Your task to perform on an android device: Clear the shopping cart on costco.com. Search for macbook on costco.com, select the first entry, add it to the cart, then select checkout. Image 0: 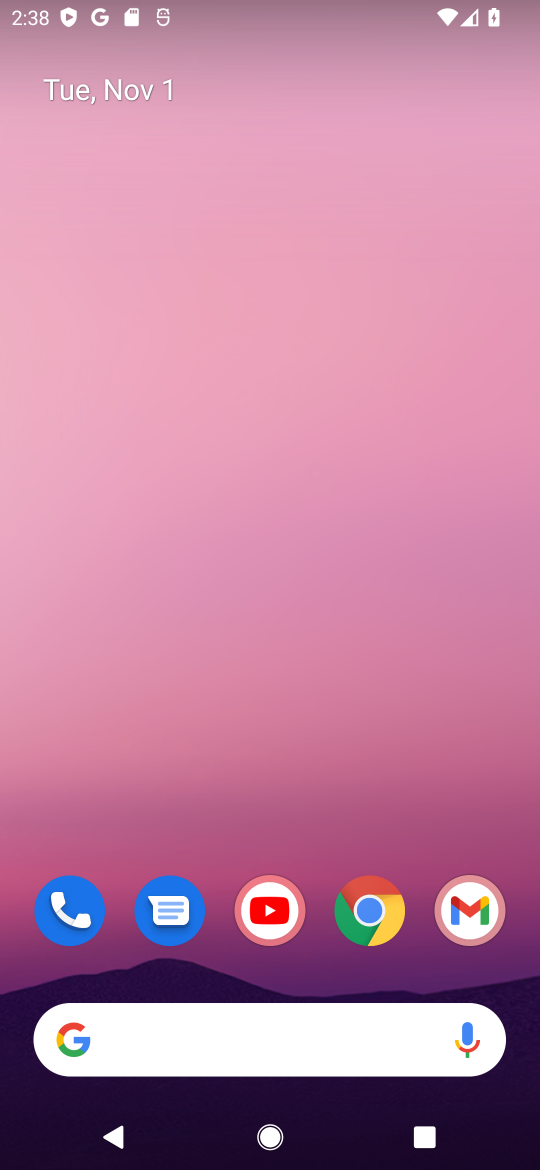
Step 0: click (262, 1033)
Your task to perform on an android device: Clear the shopping cart on costco.com. Search for macbook on costco.com, select the first entry, add it to the cart, then select checkout. Image 1: 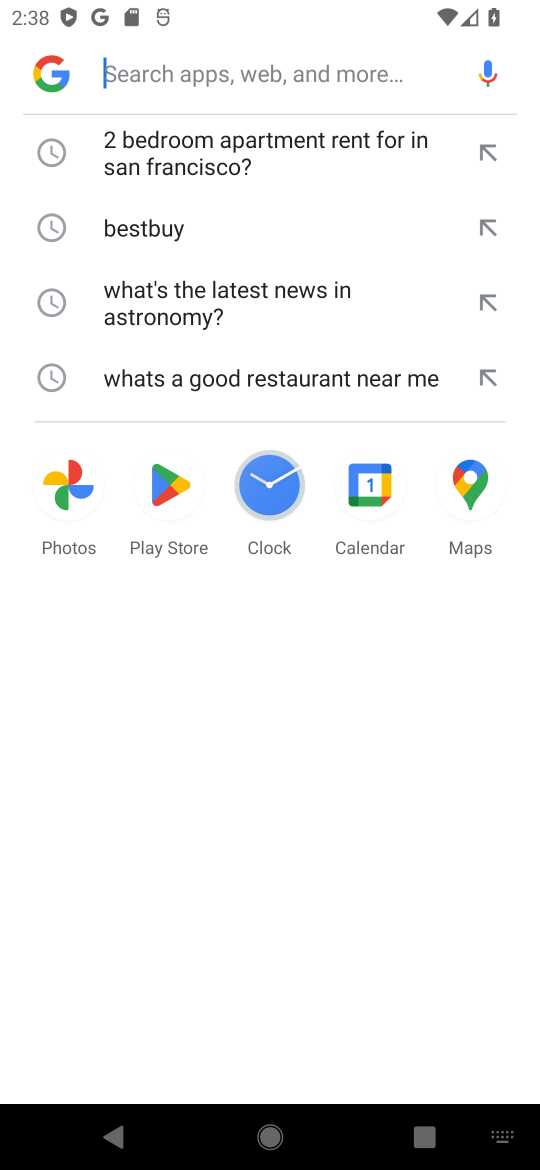
Step 1: type "costco.com."
Your task to perform on an android device: Clear the shopping cart on costco.com. Search for macbook on costco.com, select the first entry, add it to the cart, then select checkout. Image 2: 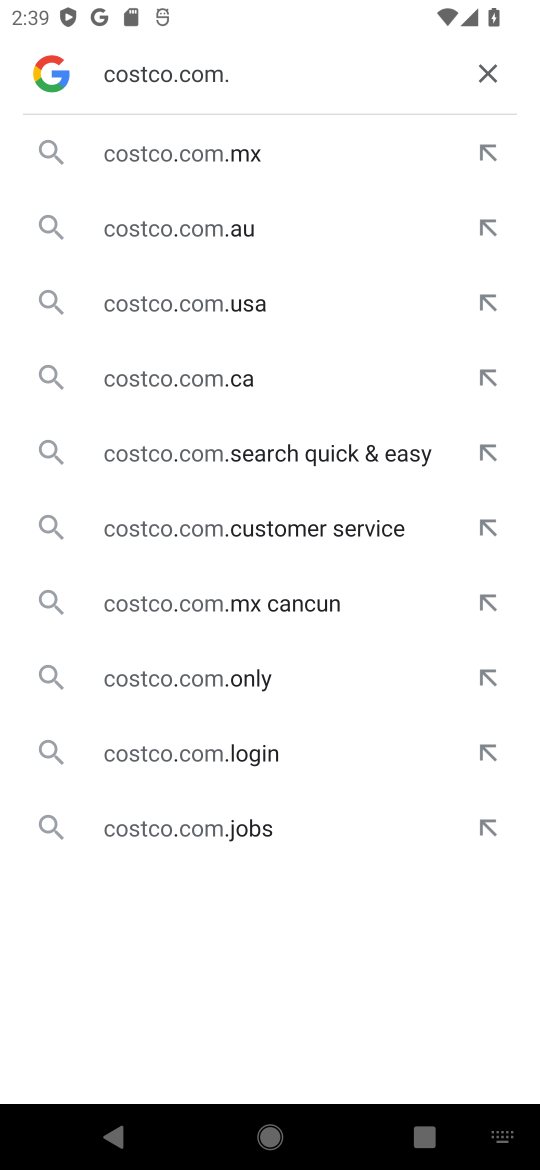
Step 2: click (230, 311)
Your task to perform on an android device: Clear the shopping cart on costco.com. Search for macbook on costco.com, select the first entry, add it to the cart, then select checkout. Image 3: 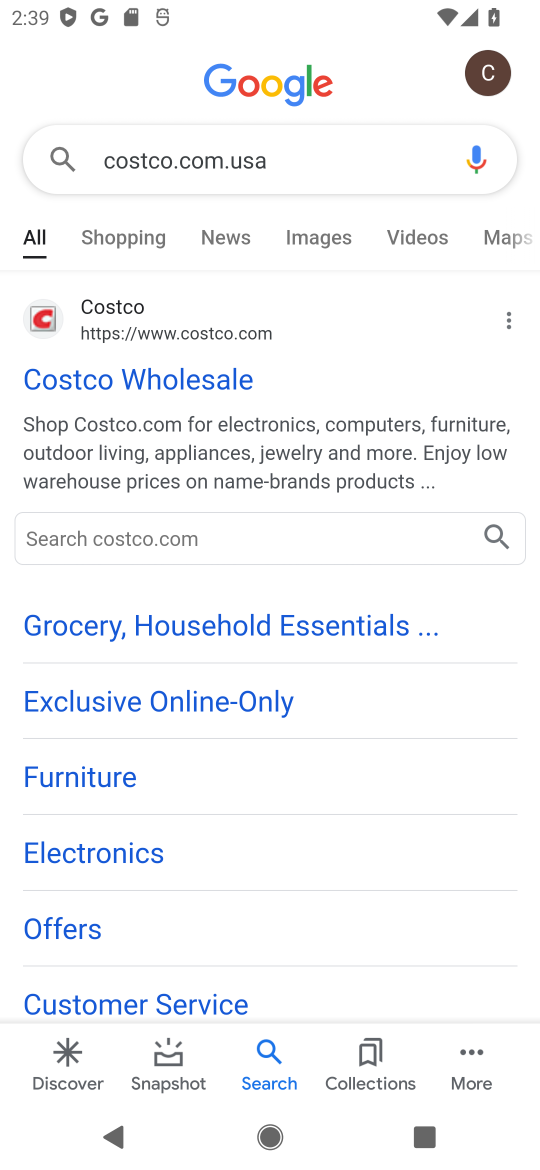
Step 3: click (117, 311)
Your task to perform on an android device: Clear the shopping cart on costco.com. Search for macbook on costco.com, select the first entry, add it to the cart, then select checkout. Image 4: 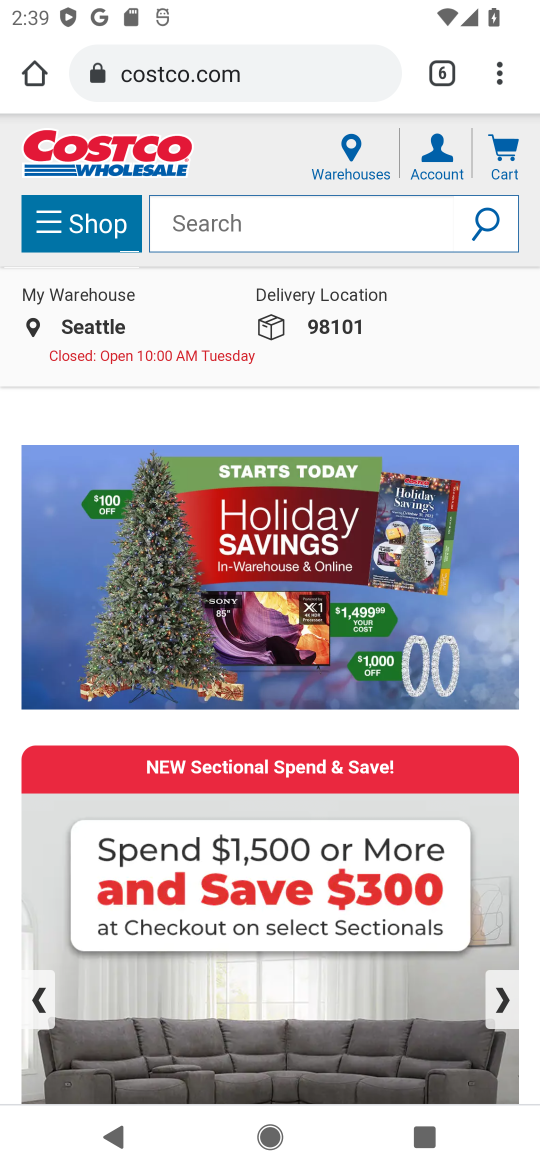
Step 4: click (350, 227)
Your task to perform on an android device: Clear the shopping cart on costco.com. Search for macbook on costco.com, select the first entry, add it to the cart, then select checkout. Image 5: 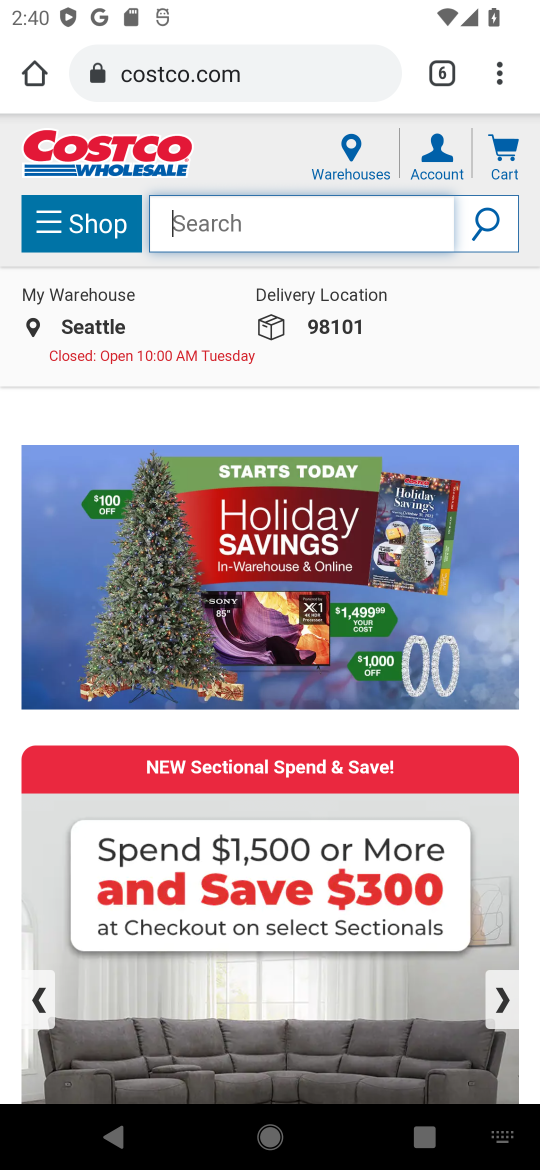
Step 5: type "macbook"
Your task to perform on an android device: Clear the shopping cart on costco.com. Search for macbook on costco.com, select the first entry, add it to the cart, then select checkout. Image 6: 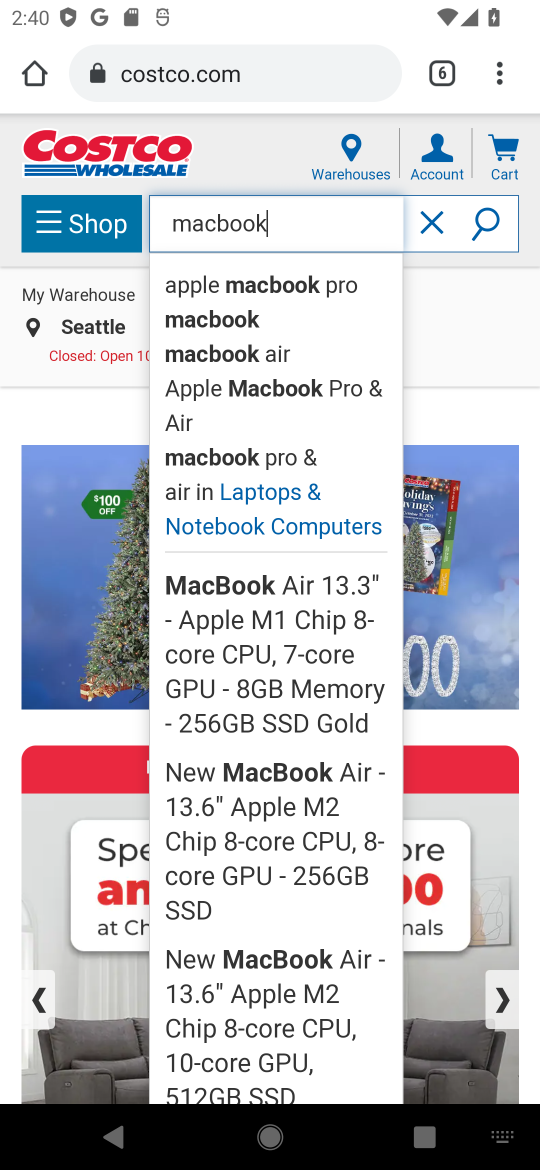
Step 6: click (234, 315)
Your task to perform on an android device: Clear the shopping cart on costco.com. Search for macbook on costco.com, select the first entry, add it to the cart, then select checkout. Image 7: 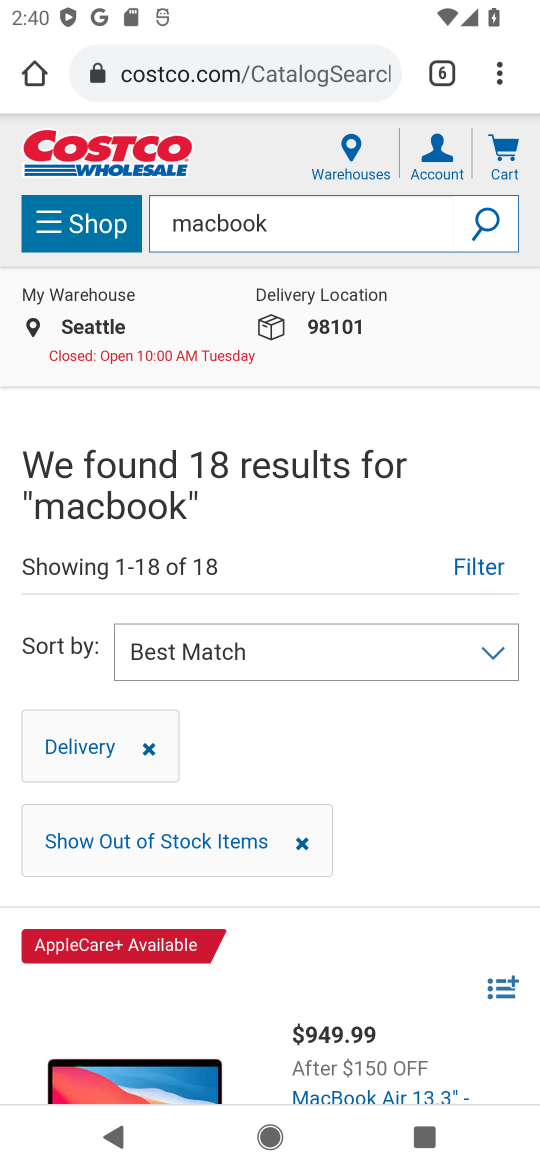
Step 7: click (330, 1053)
Your task to perform on an android device: Clear the shopping cart on costco.com. Search for macbook on costco.com, select the first entry, add it to the cart, then select checkout. Image 8: 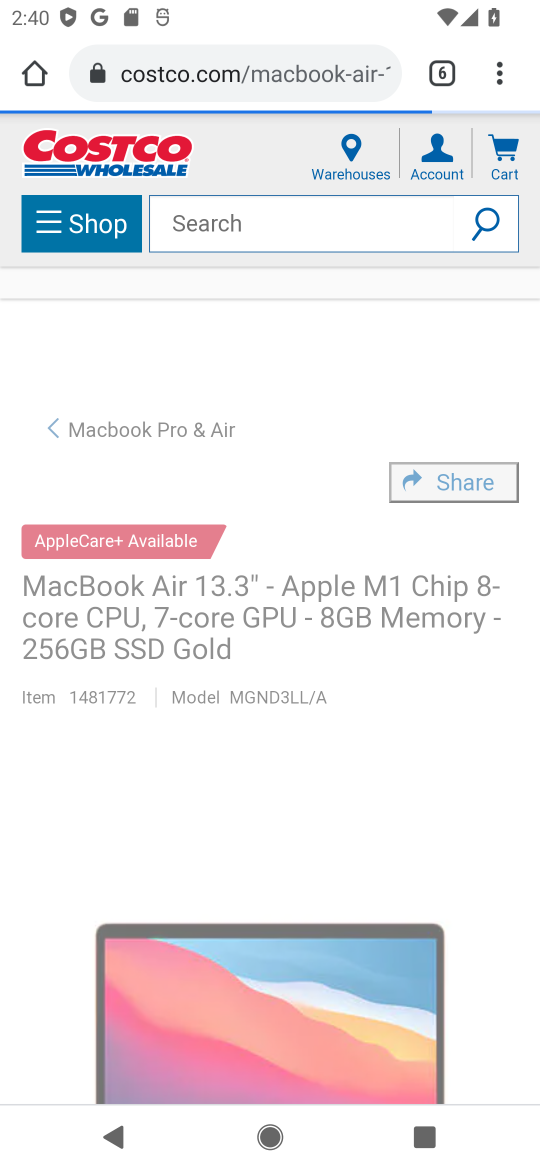
Step 8: drag from (322, 1025) to (281, 465)
Your task to perform on an android device: Clear the shopping cart on costco.com. Search for macbook on costco.com, select the first entry, add it to the cart, then select checkout. Image 9: 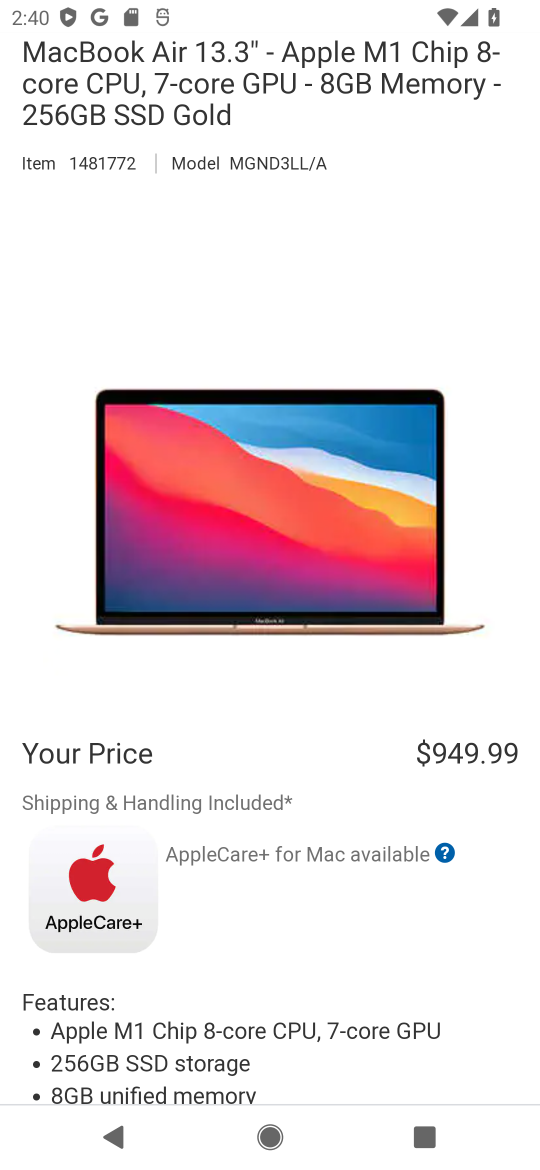
Step 9: drag from (192, 917) to (236, 443)
Your task to perform on an android device: Clear the shopping cart on costco.com. Search for macbook on costco.com, select the first entry, add it to the cart, then select checkout. Image 10: 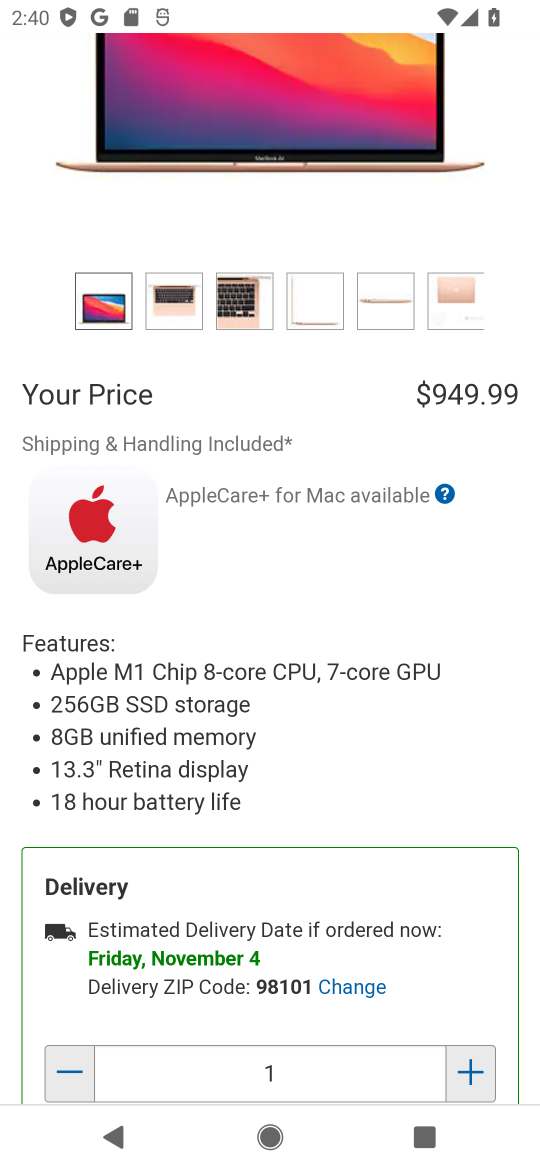
Step 10: click (367, 354)
Your task to perform on an android device: Clear the shopping cart on costco.com. Search for macbook on costco.com, select the first entry, add it to the cart, then select checkout. Image 11: 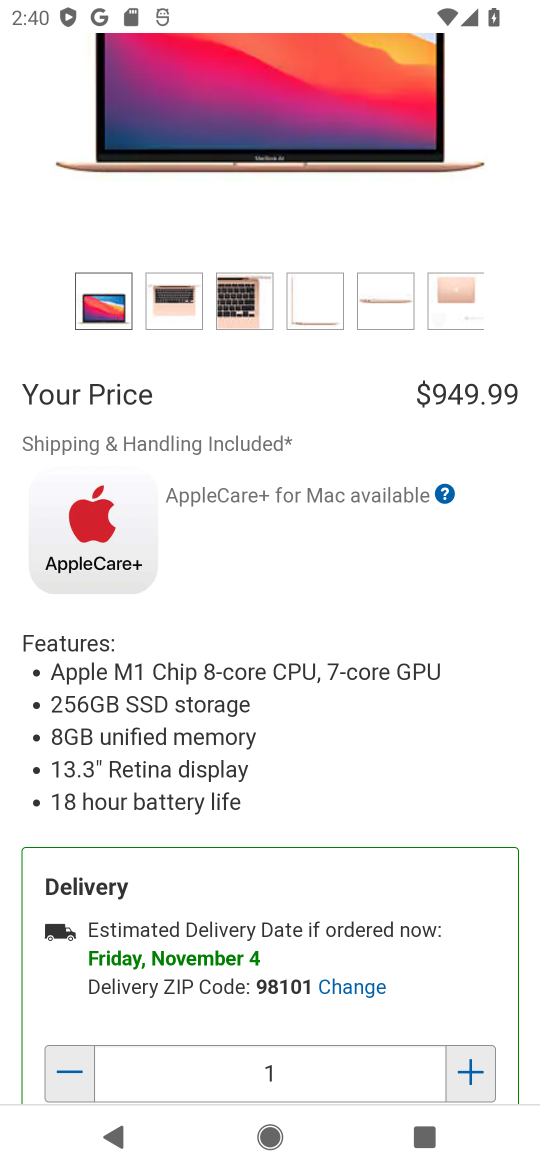
Step 11: drag from (266, 826) to (298, 236)
Your task to perform on an android device: Clear the shopping cart on costco.com. Search for macbook on costco.com, select the first entry, add it to the cart, then select checkout. Image 12: 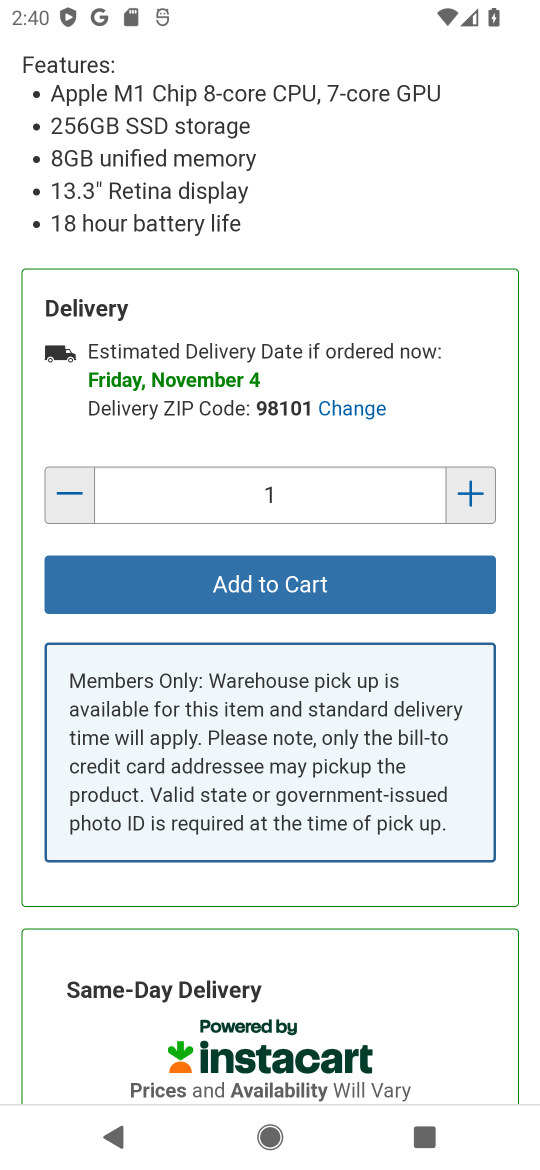
Step 12: click (261, 593)
Your task to perform on an android device: Clear the shopping cart on costco.com. Search for macbook on costco.com, select the first entry, add it to the cart, then select checkout. Image 13: 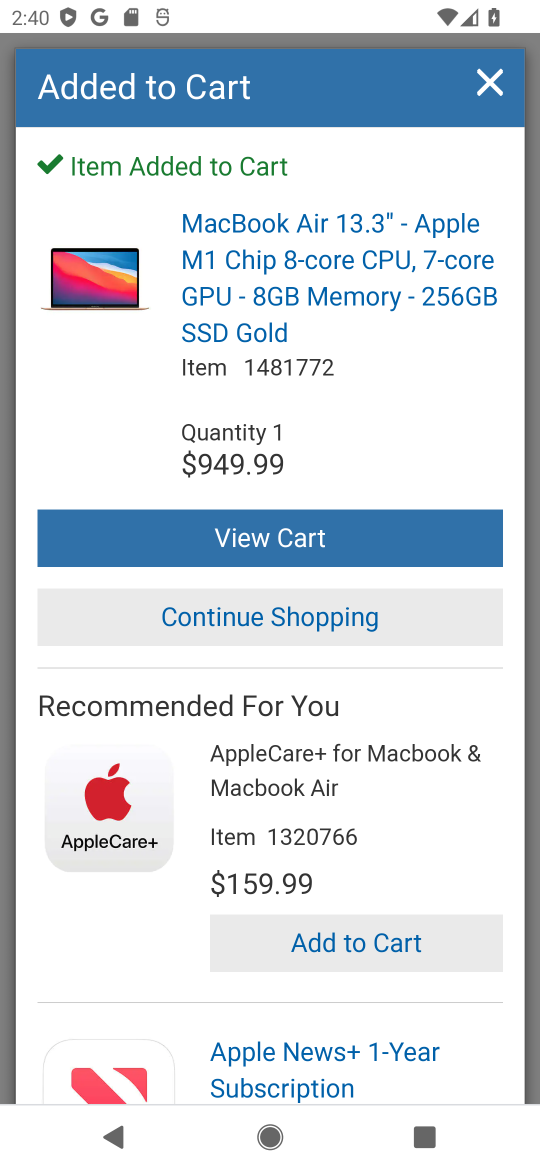
Step 13: task complete